Your task to perform on an android device: toggle javascript in the chrome app Image 0: 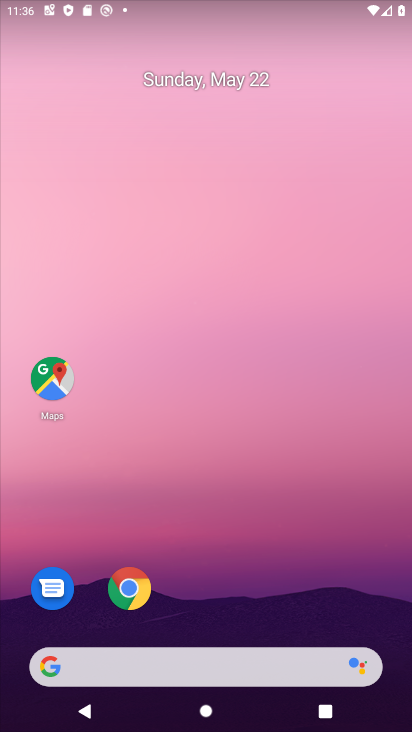
Step 0: drag from (254, 695) to (272, 94)
Your task to perform on an android device: toggle javascript in the chrome app Image 1: 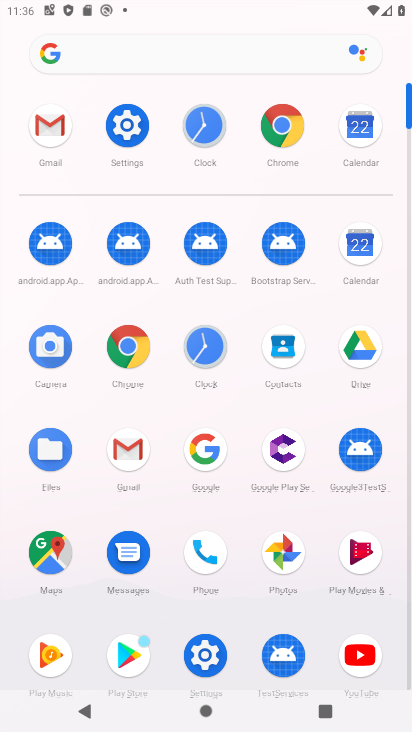
Step 1: click (285, 132)
Your task to perform on an android device: toggle javascript in the chrome app Image 2: 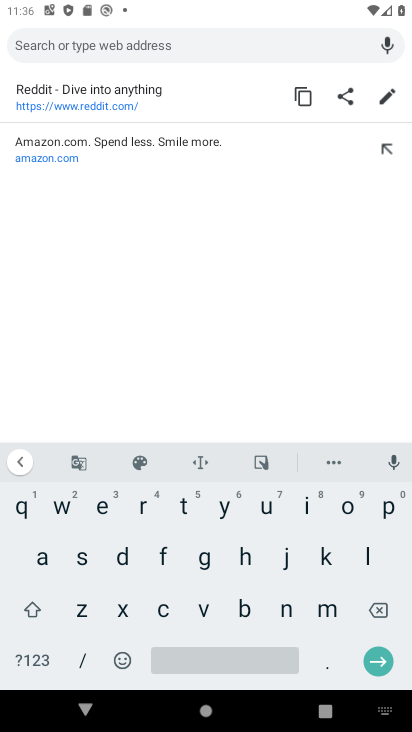
Step 2: press back button
Your task to perform on an android device: toggle javascript in the chrome app Image 3: 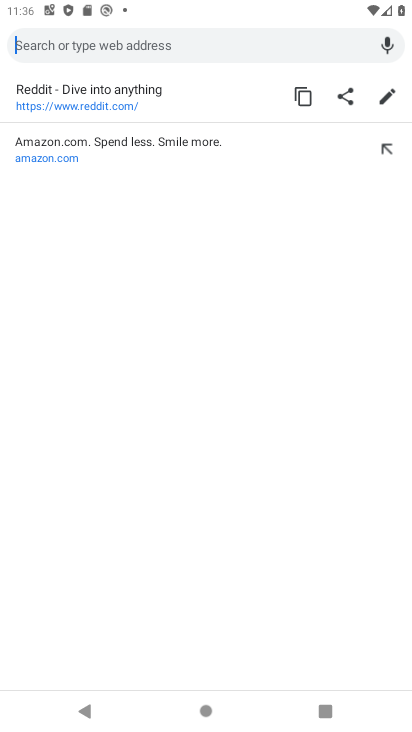
Step 3: press back button
Your task to perform on an android device: toggle javascript in the chrome app Image 4: 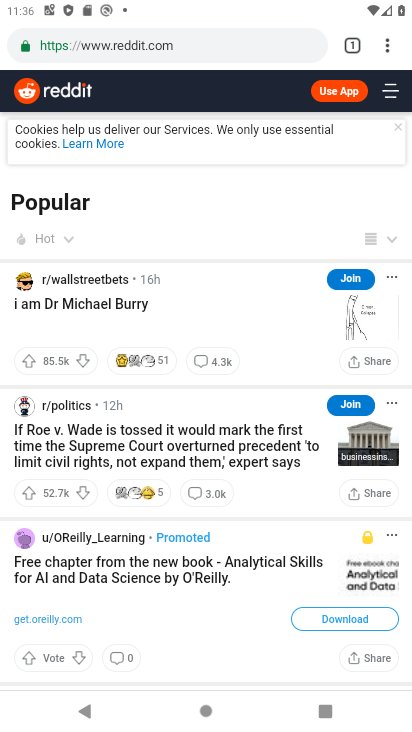
Step 4: click (386, 53)
Your task to perform on an android device: toggle javascript in the chrome app Image 5: 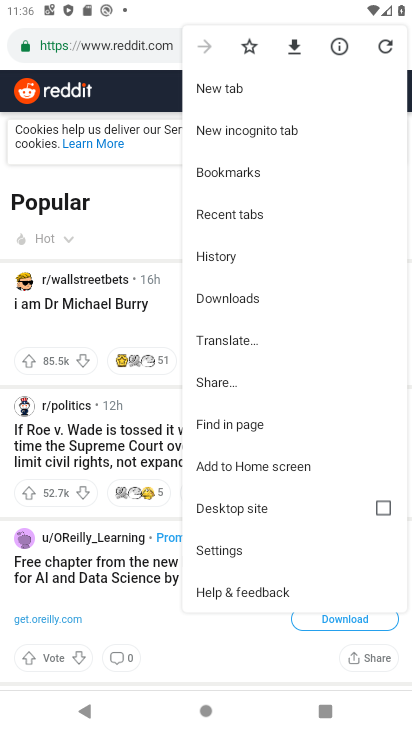
Step 5: click (225, 549)
Your task to perform on an android device: toggle javascript in the chrome app Image 6: 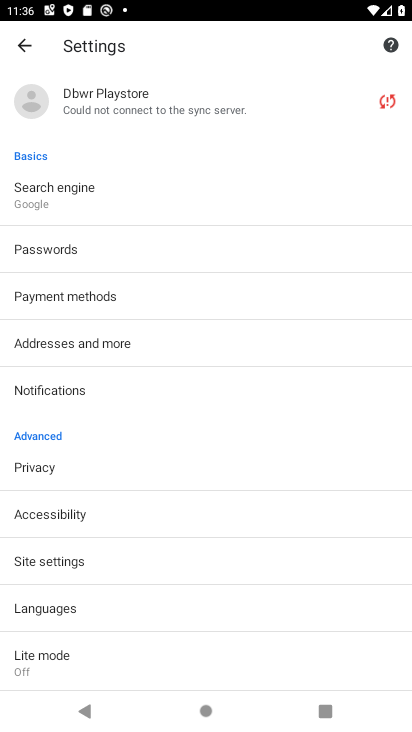
Step 6: click (51, 557)
Your task to perform on an android device: toggle javascript in the chrome app Image 7: 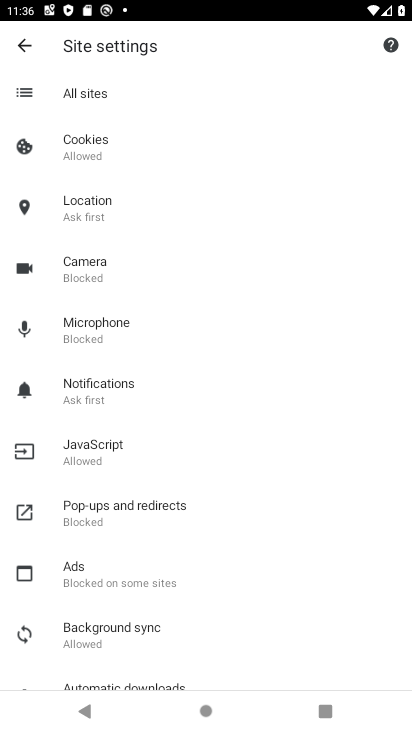
Step 7: click (94, 450)
Your task to perform on an android device: toggle javascript in the chrome app Image 8: 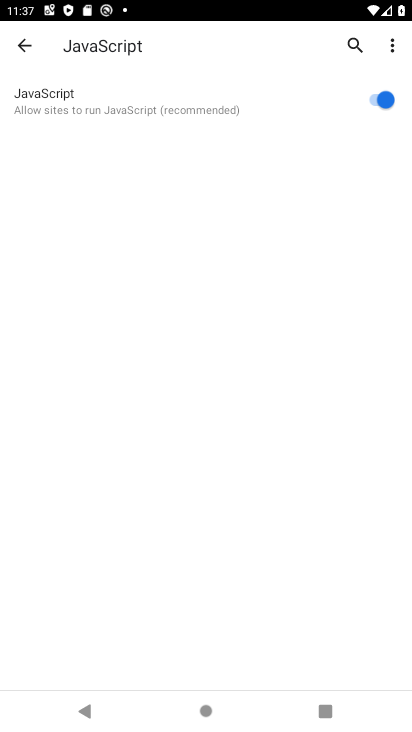
Step 8: task complete